Your task to perform on an android device: Open Reddit.com Image 0: 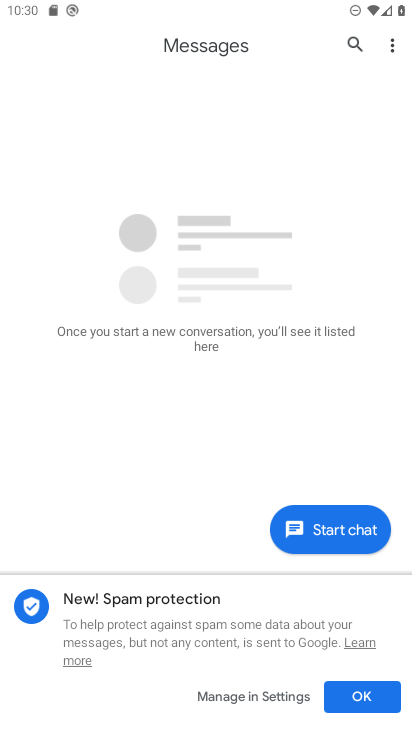
Step 0: press home button
Your task to perform on an android device: Open Reddit.com Image 1: 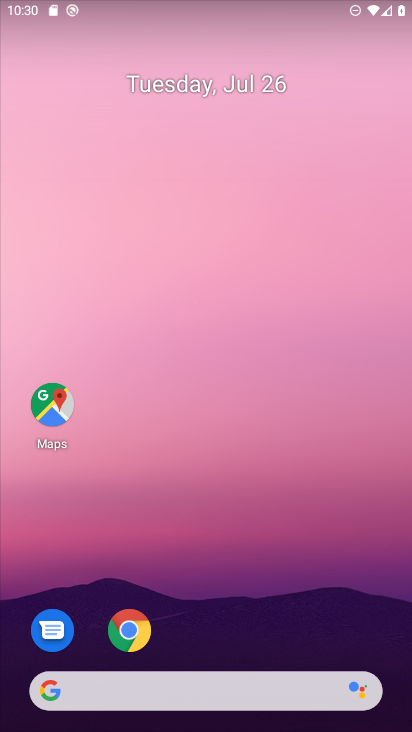
Step 1: click (131, 636)
Your task to perform on an android device: Open Reddit.com Image 2: 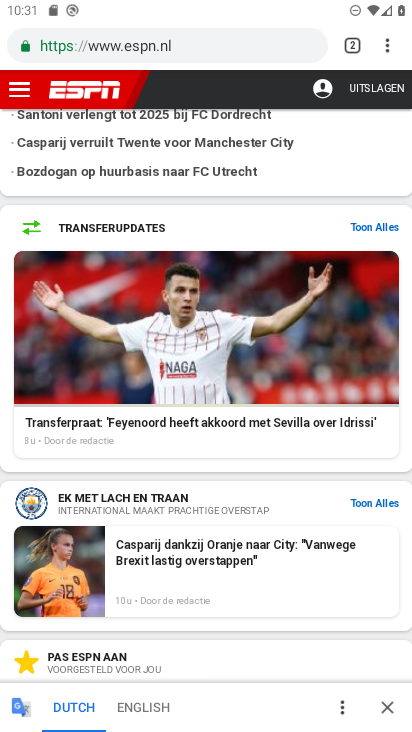
Step 2: click (202, 38)
Your task to perform on an android device: Open Reddit.com Image 3: 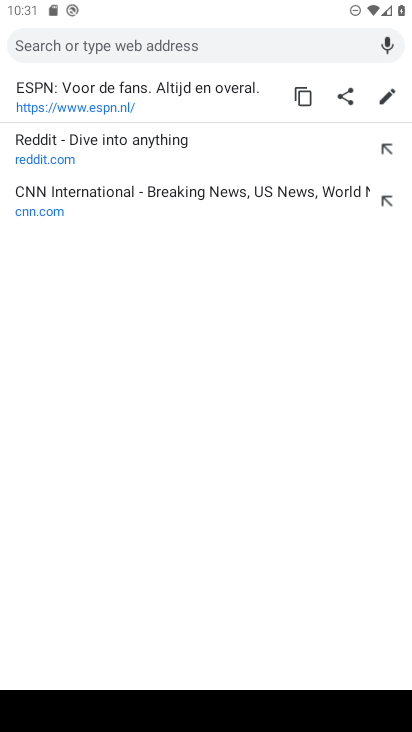
Step 3: type "reddit.com"
Your task to perform on an android device: Open Reddit.com Image 4: 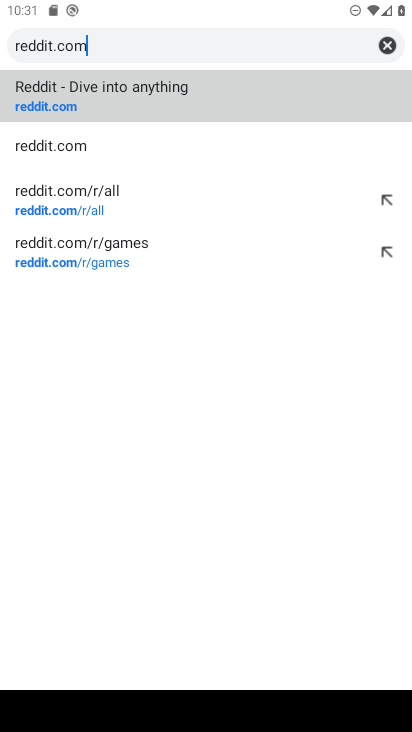
Step 4: click (83, 91)
Your task to perform on an android device: Open Reddit.com Image 5: 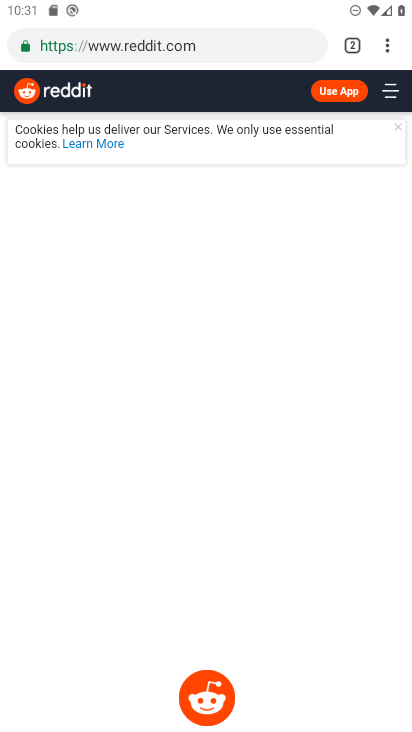
Step 5: click (267, 517)
Your task to perform on an android device: Open Reddit.com Image 6: 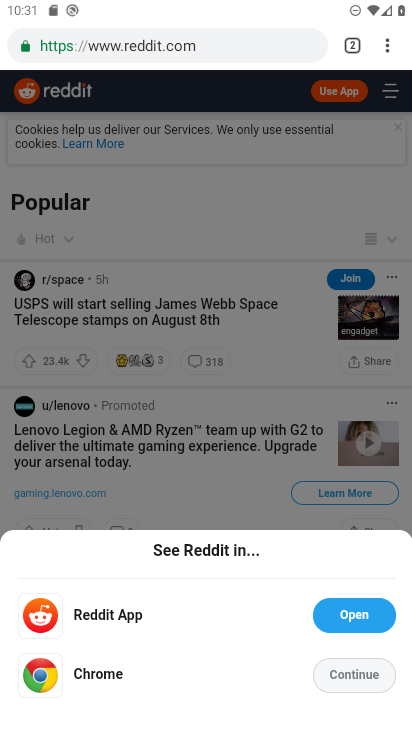
Step 6: task complete